Your task to perform on an android device: Play the last video I watched on Youtube Image 0: 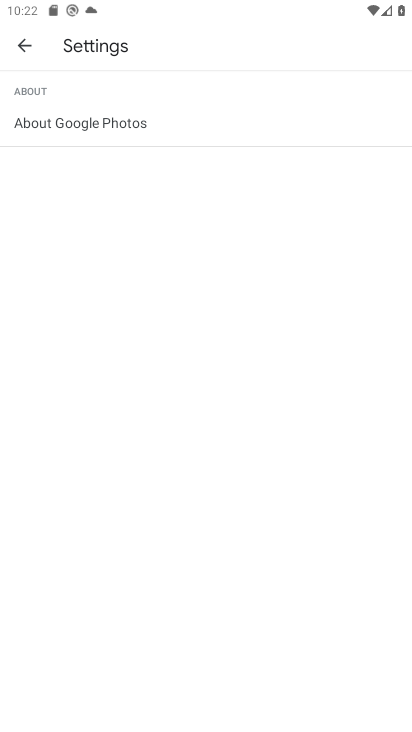
Step 0: press home button
Your task to perform on an android device: Play the last video I watched on Youtube Image 1: 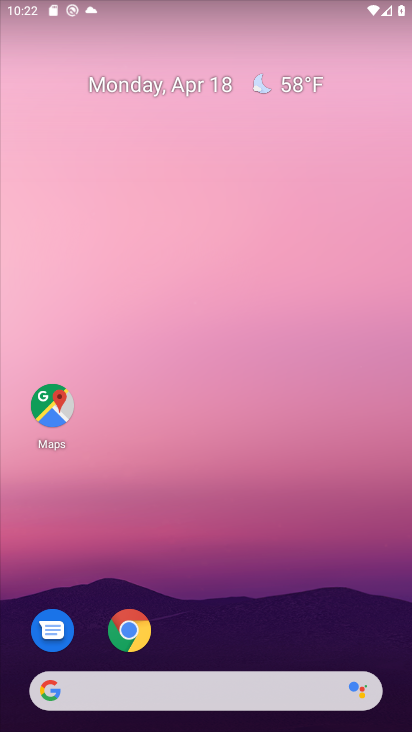
Step 1: drag from (206, 669) to (301, 38)
Your task to perform on an android device: Play the last video I watched on Youtube Image 2: 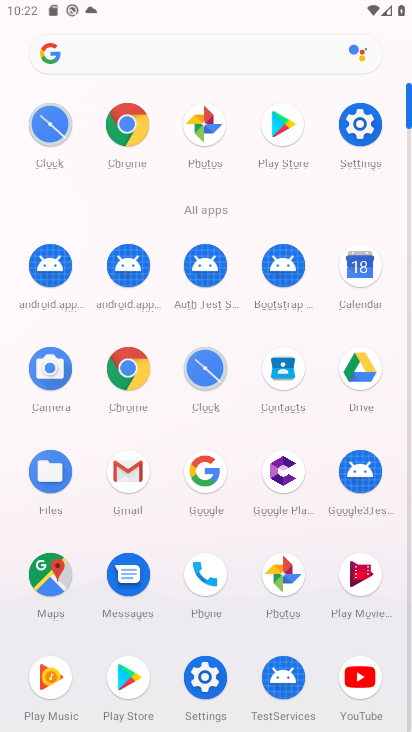
Step 2: click (363, 680)
Your task to perform on an android device: Play the last video I watched on Youtube Image 3: 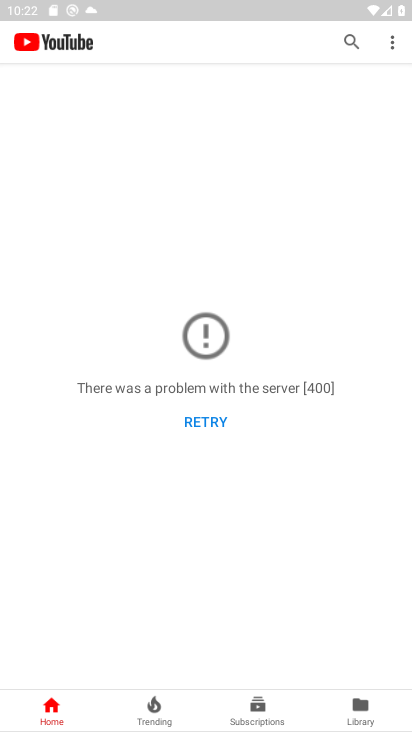
Step 3: click (178, 412)
Your task to perform on an android device: Play the last video I watched on Youtube Image 4: 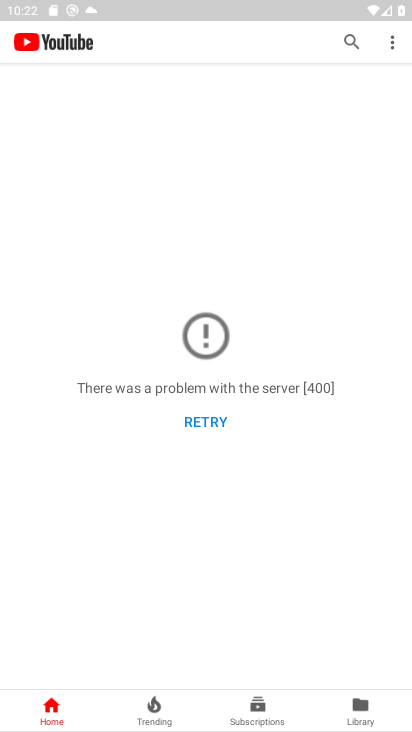
Step 4: click (198, 411)
Your task to perform on an android device: Play the last video I watched on Youtube Image 5: 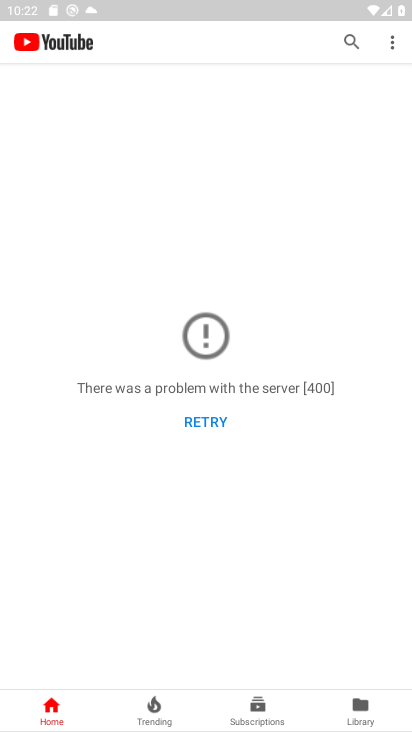
Step 5: click (197, 421)
Your task to perform on an android device: Play the last video I watched on Youtube Image 6: 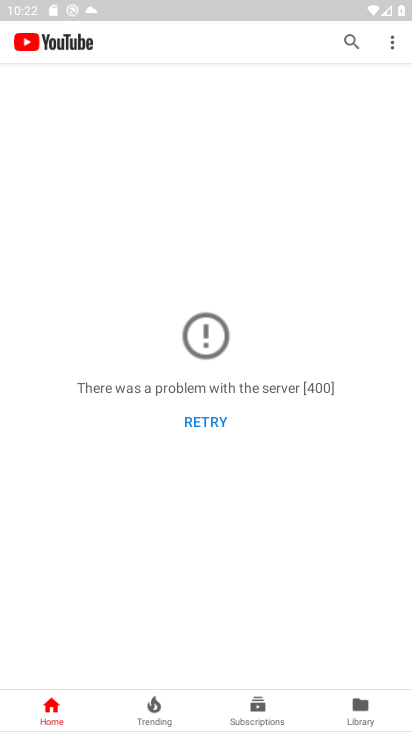
Step 6: task complete